Your task to perform on an android device: uninstall "Google Play services" Image 0: 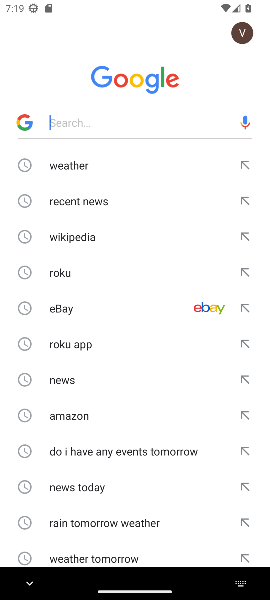
Step 0: press home button
Your task to perform on an android device: uninstall "Google Play services" Image 1: 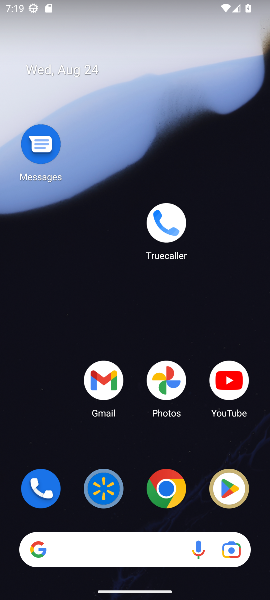
Step 1: click (220, 498)
Your task to perform on an android device: uninstall "Google Play services" Image 2: 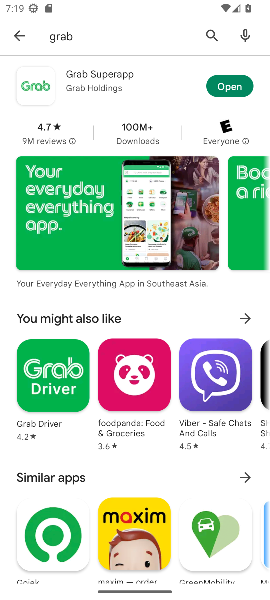
Step 2: click (208, 37)
Your task to perform on an android device: uninstall "Google Play services" Image 3: 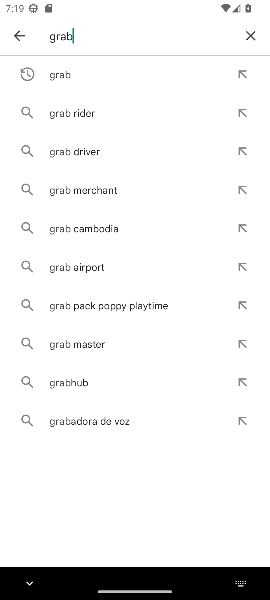
Step 3: click (245, 42)
Your task to perform on an android device: uninstall "Google Play services" Image 4: 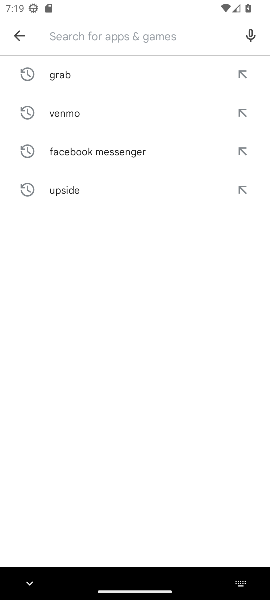
Step 4: type "google play"
Your task to perform on an android device: uninstall "Google Play services" Image 5: 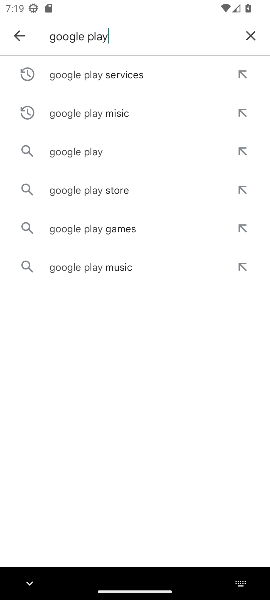
Step 5: click (202, 67)
Your task to perform on an android device: uninstall "Google Play services" Image 6: 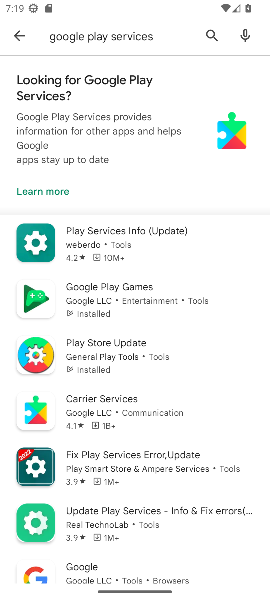
Step 6: task complete